Your task to perform on an android device: open wifi settings Image 0: 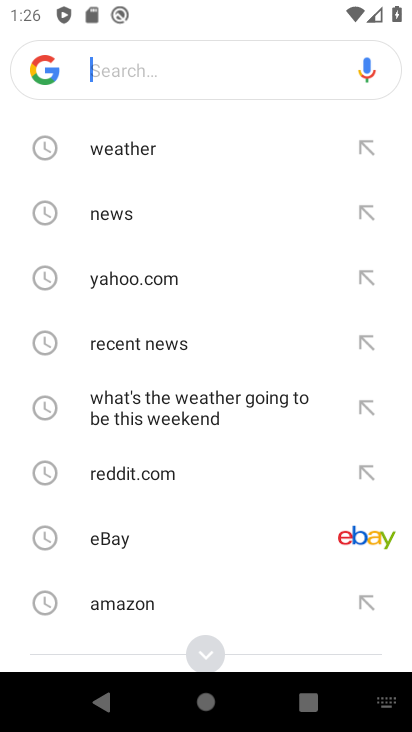
Step 0: drag from (189, 14) to (174, 684)
Your task to perform on an android device: open wifi settings Image 1: 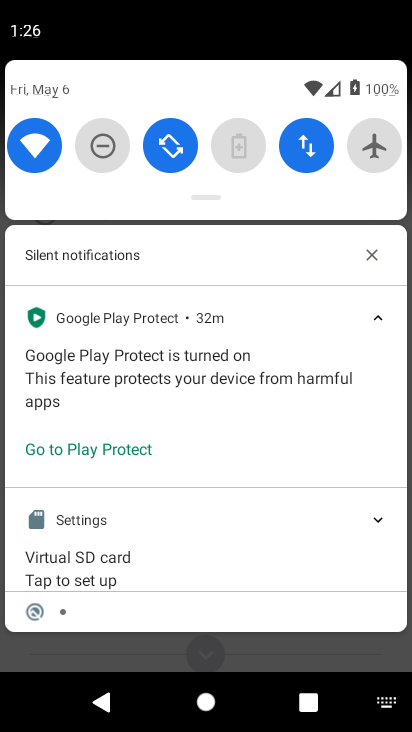
Step 1: click (39, 160)
Your task to perform on an android device: open wifi settings Image 2: 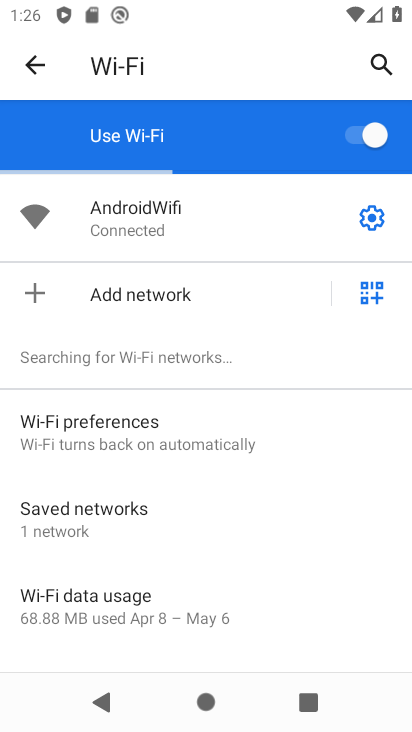
Step 2: task complete